Your task to perform on an android device: Open calendar and show me the first week of next month Image 0: 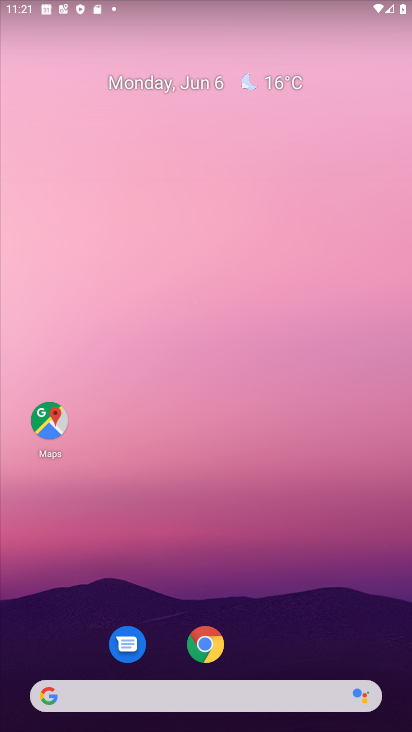
Step 0: drag from (324, 634) to (251, 251)
Your task to perform on an android device: Open calendar and show me the first week of next month Image 1: 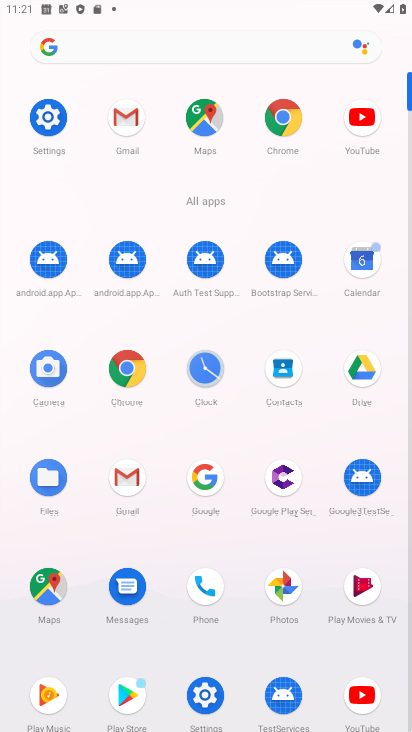
Step 1: click (372, 248)
Your task to perform on an android device: Open calendar and show me the first week of next month Image 2: 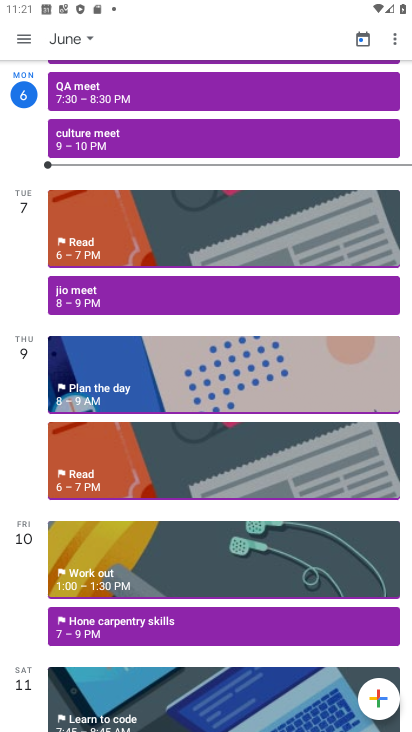
Step 2: click (31, 35)
Your task to perform on an android device: Open calendar and show me the first week of next month Image 3: 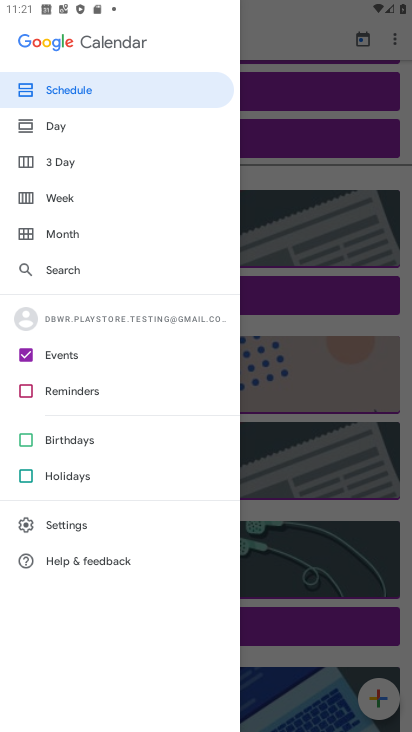
Step 3: click (69, 200)
Your task to perform on an android device: Open calendar and show me the first week of next month Image 4: 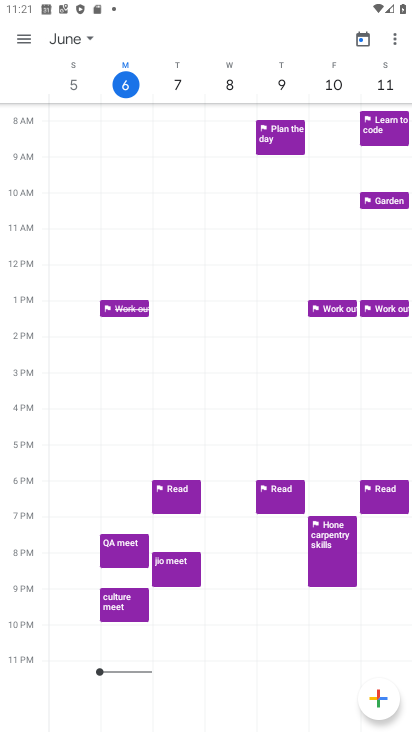
Step 4: click (74, 44)
Your task to perform on an android device: Open calendar and show me the first week of next month Image 5: 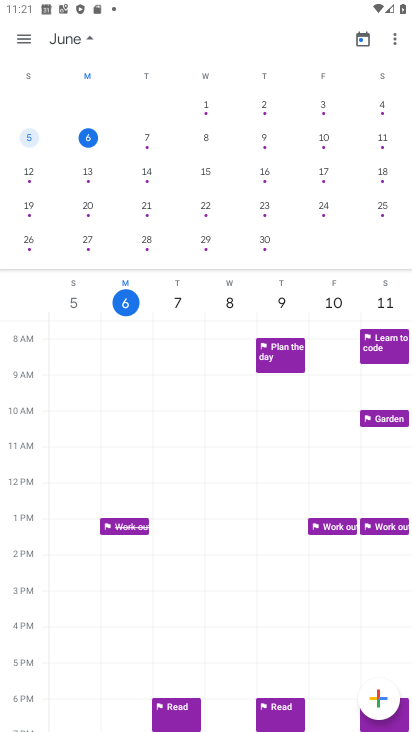
Step 5: drag from (389, 189) to (22, 192)
Your task to perform on an android device: Open calendar and show me the first week of next month Image 6: 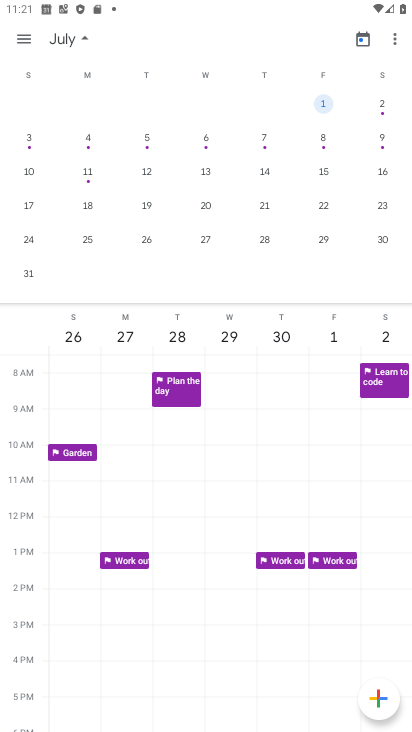
Step 6: click (204, 137)
Your task to perform on an android device: Open calendar and show me the first week of next month Image 7: 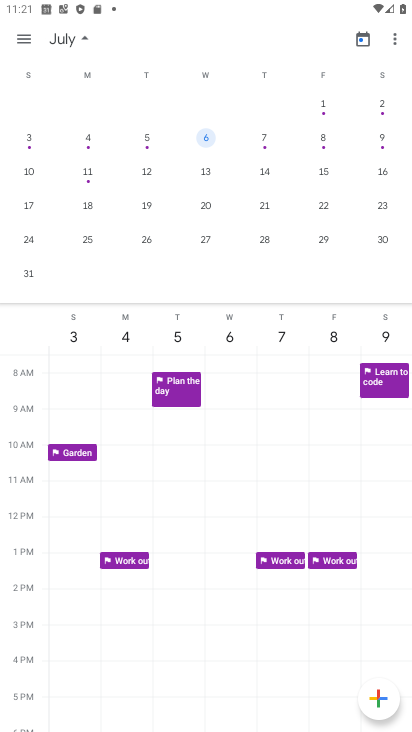
Step 7: task complete